Your task to perform on an android device: Search for Italian restaurants on Maps Image 0: 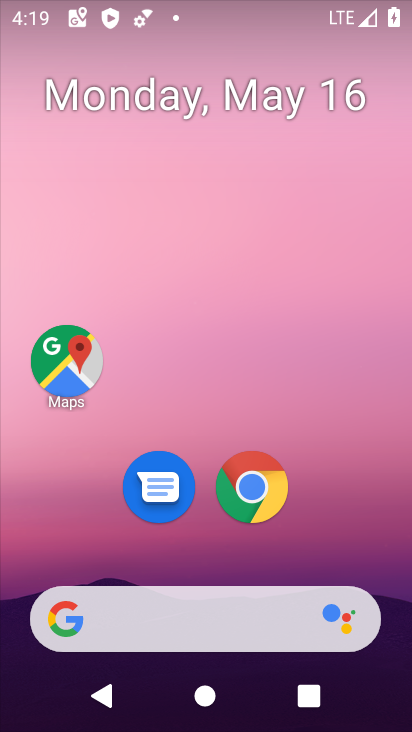
Step 0: click (66, 359)
Your task to perform on an android device: Search for Italian restaurants on Maps Image 1: 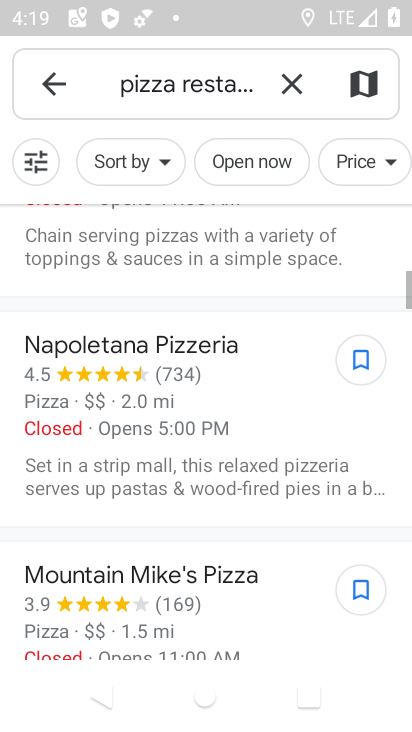
Step 1: click (293, 79)
Your task to perform on an android device: Search for Italian restaurants on Maps Image 2: 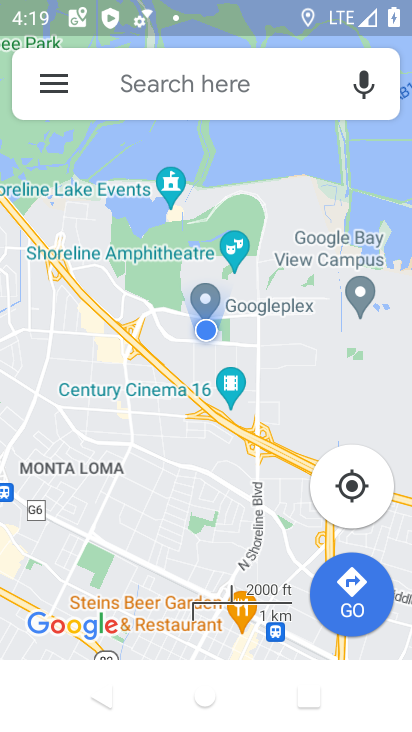
Step 2: click (193, 82)
Your task to perform on an android device: Search for Italian restaurants on Maps Image 3: 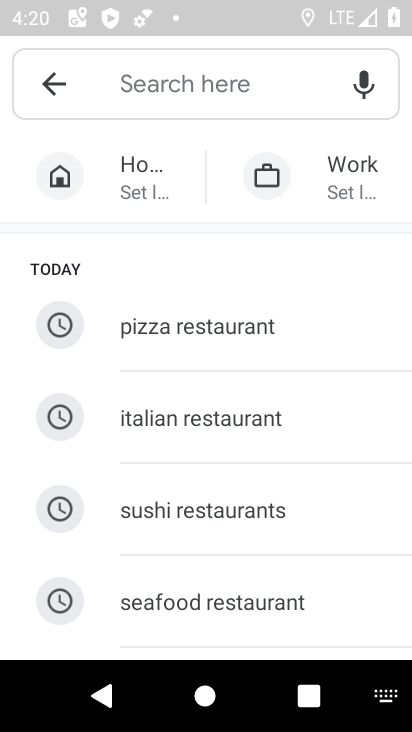
Step 3: type "italian restaurants"
Your task to perform on an android device: Search for Italian restaurants on Maps Image 4: 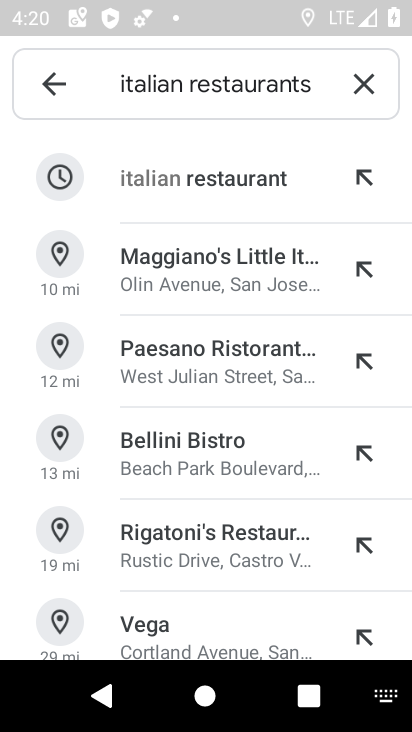
Step 4: click (201, 179)
Your task to perform on an android device: Search for Italian restaurants on Maps Image 5: 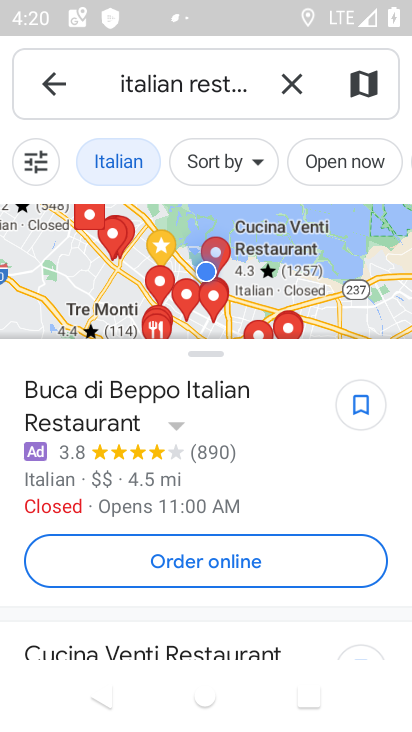
Step 5: task complete